Your task to perform on an android device: delete browsing data in the chrome app Image 0: 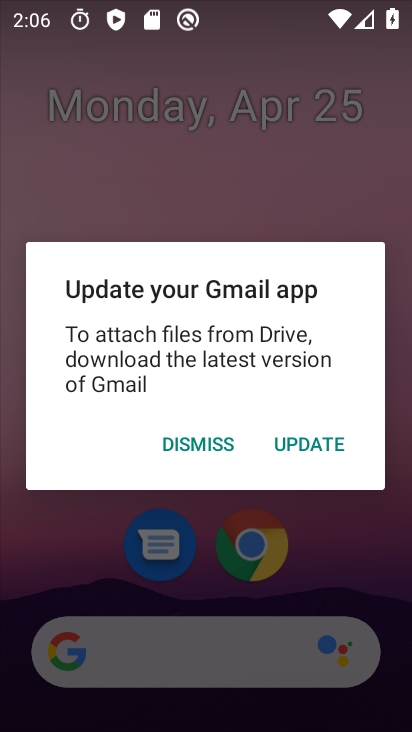
Step 0: press home button
Your task to perform on an android device: delete browsing data in the chrome app Image 1: 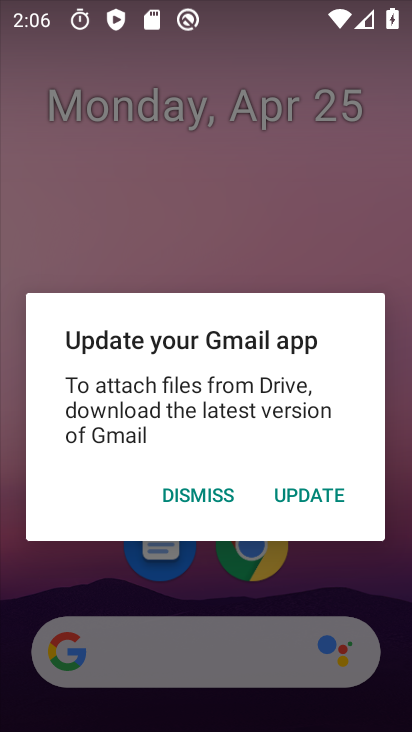
Step 1: press home button
Your task to perform on an android device: delete browsing data in the chrome app Image 2: 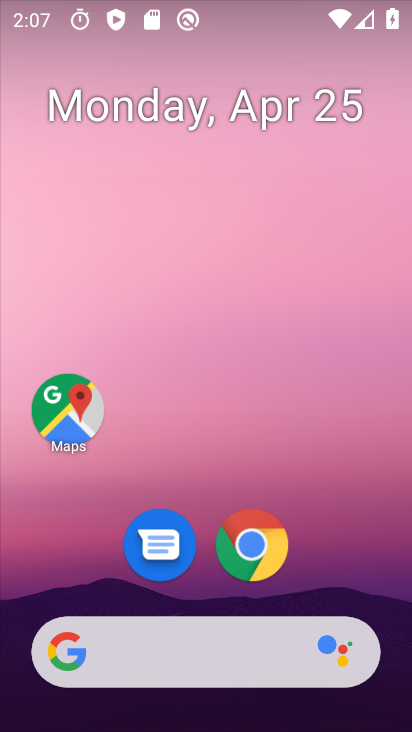
Step 2: click (260, 553)
Your task to perform on an android device: delete browsing data in the chrome app Image 3: 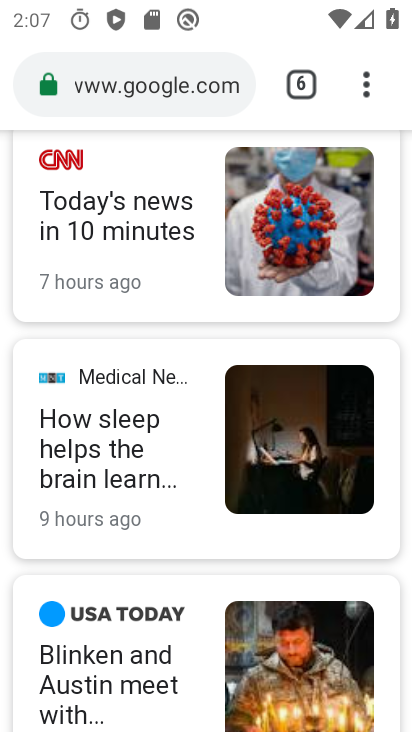
Step 3: click (372, 71)
Your task to perform on an android device: delete browsing data in the chrome app Image 4: 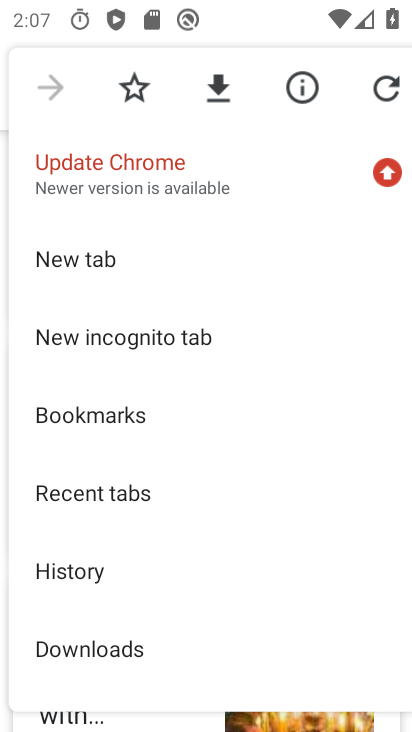
Step 4: click (102, 581)
Your task to perform on an android device: delete browsing data in the chrome app Image 5: 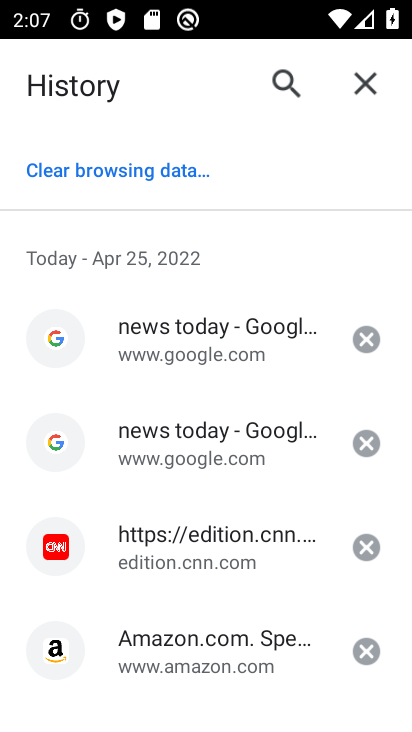
Step 5: click (158, 171)
Your task to perform on an android device: delete browsing data in the chrome app Image 6: 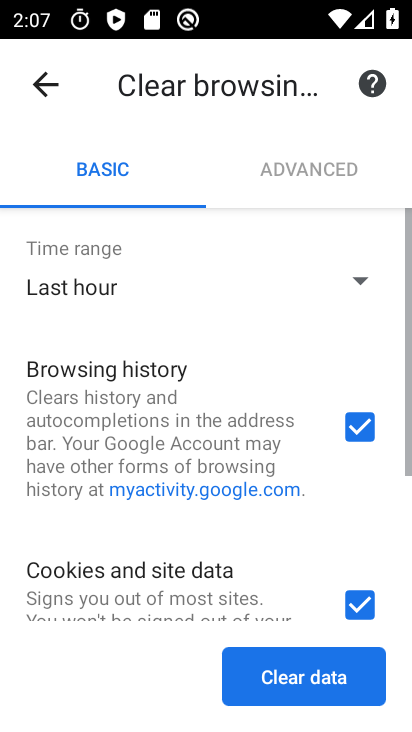
Step 6: click (322, 671)
Your task to perform on an android device: delete browsing data in the chrome app Image 7: 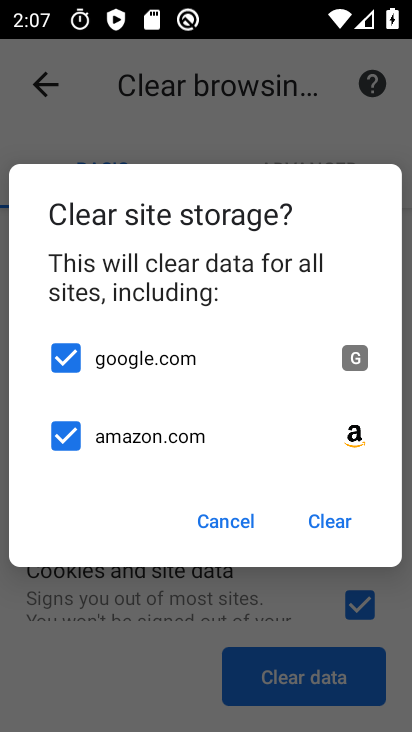
Step 7: click (330, 528)
Your task to perform on an android device: delete browsing data in the chrome app Image 8: 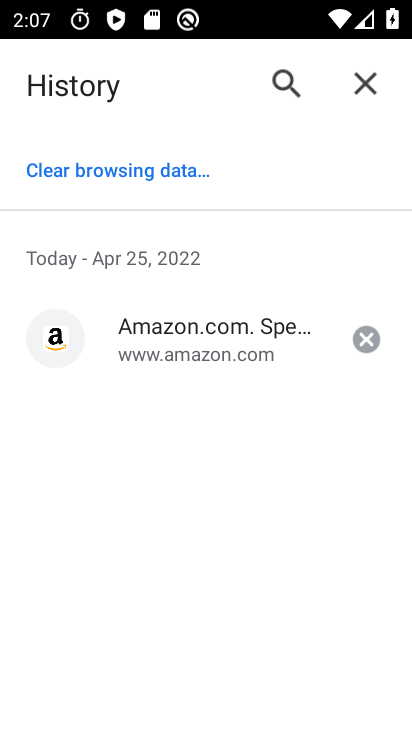
Step 8: click (190, 163)
Your task to perform on an android device: delete browsing data in the chrome app Image 9: 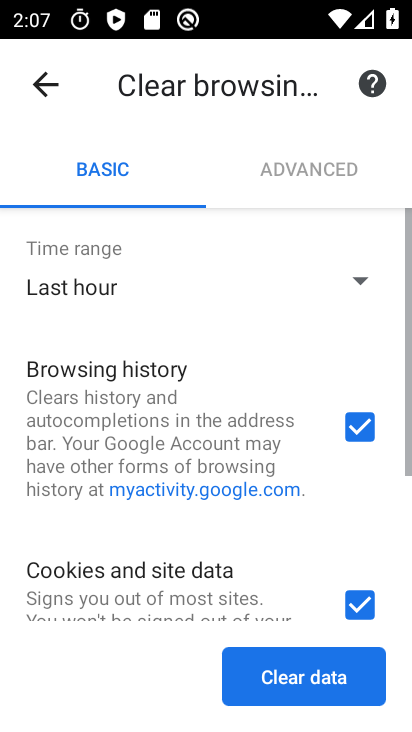
Step 9: click (347, 675)
Your task to perform on an android device: delete browsing data in the chrome app Image 10: 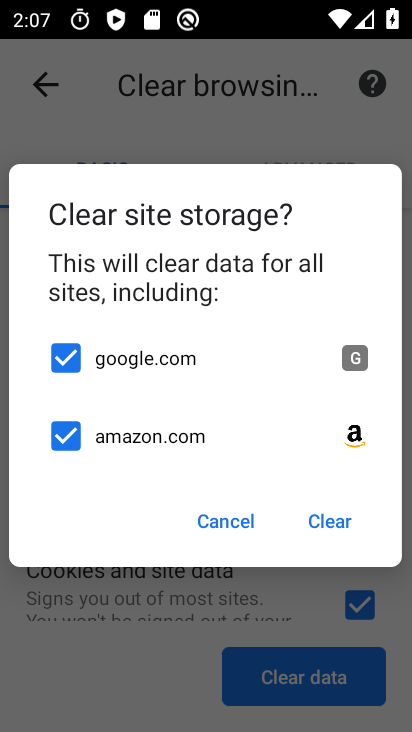
Step 10: click (328, 518)
Your task to perform on an android device: delete browsing data in the chrome app Image 11: 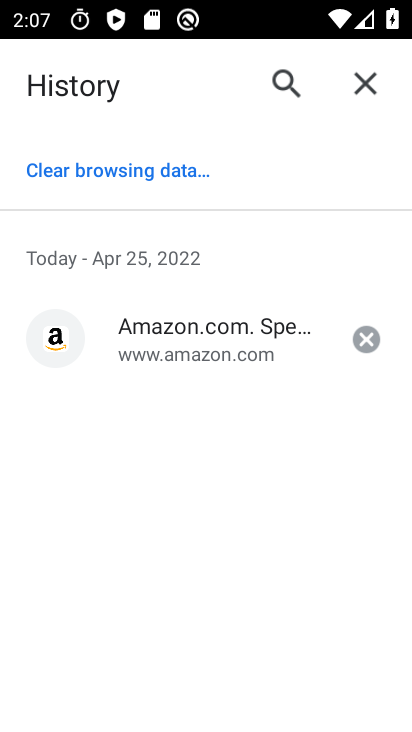
Step 11: task complete